Your task to perform on an android device: uninstall "WhatsApp Messenger" Image 0: 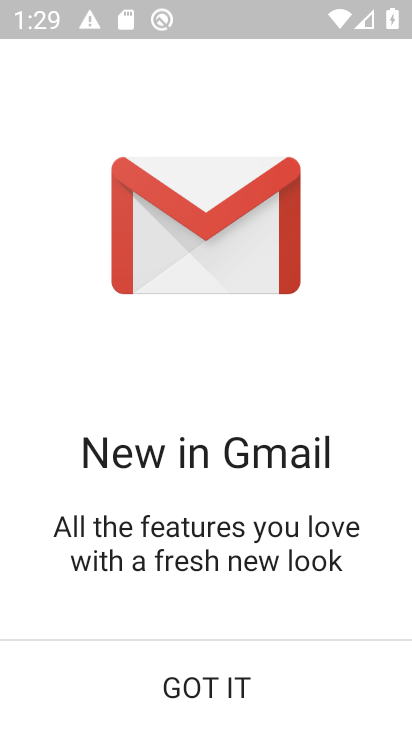
Step 0: press home button
Your task to perform on an android device: uninstall "WhatsApp Messenger" Image 1: 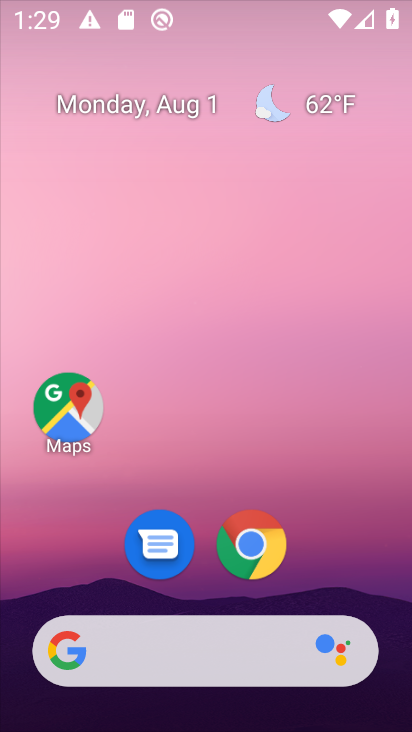
Step 1: drag from (404, 658) to (289, 26)
Your task to perform on an android device: uninstall "WhatsApp Messenger" Image 2: 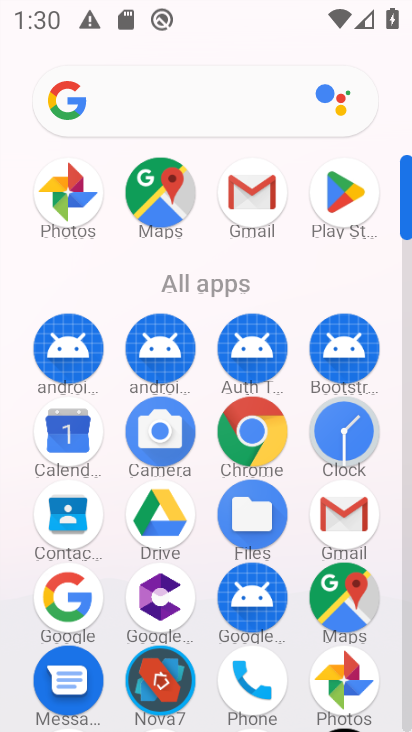
Step 2: click (344, 212)
Your task to perform on an android device: uninstall "WhatsApp Messenger" Image 3: 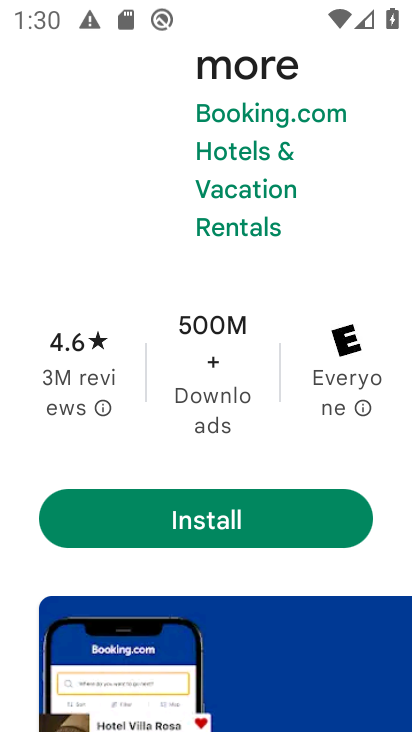
Step 3: press back button
Your task to perform on an android device: uninstall "WhatsApp Messenger" Image 4: 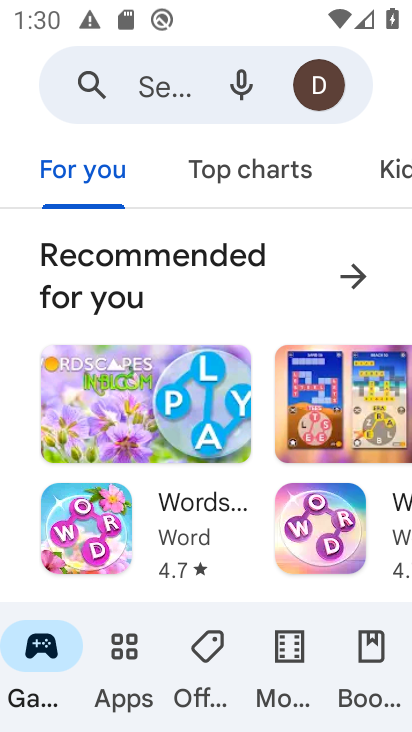
Step 4: click (128, 91)
Your task to perform on an android device: uninstall "WhatsApp Messenger" Image 5: 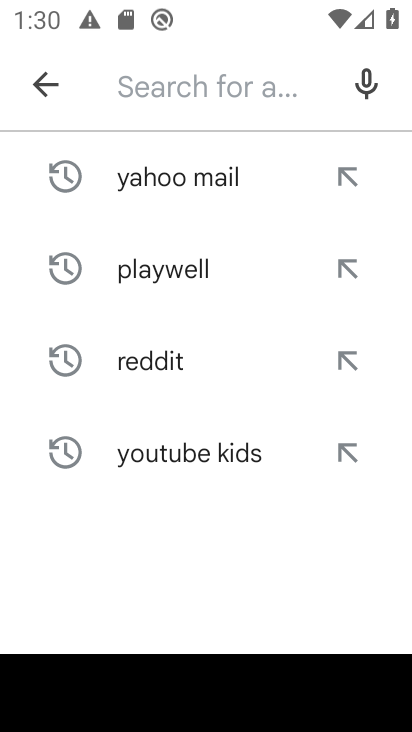
Step 5: type "WhatsApp Messenger"
Your task to perform on an android device: uninstall "WhatsApp Messenger" Image 6: 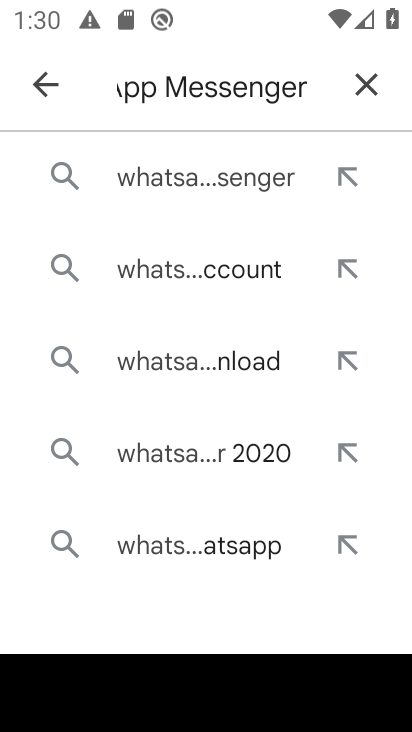
Step 6: click (198, 182)
Your task to perform on an android device: uninstall "WhatsApp Messenger" Image 7: 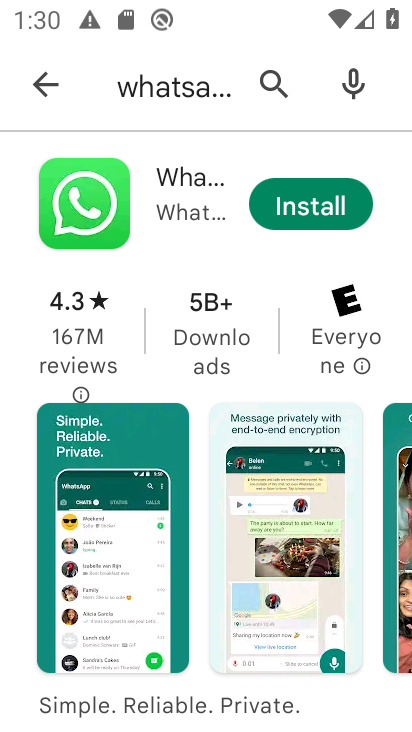
Step 7: task complete